Your task to perform on an android device: Open ESPN.com Image 0: 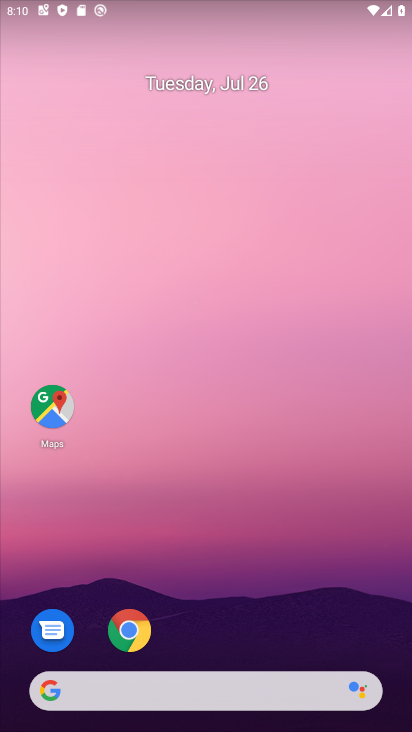
Step 0: click (218, 686)
Your task to perform on an android device: Open ESPN.com Image 1: 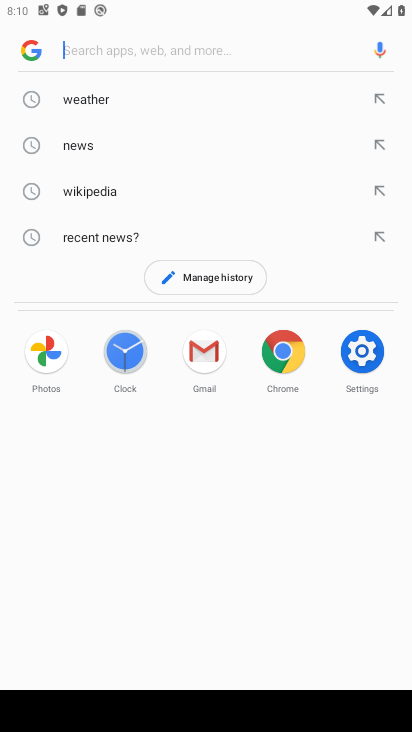
Step 1: type "espn.com"
Your task to perform on an android device: Open ESPN.com Image 2: 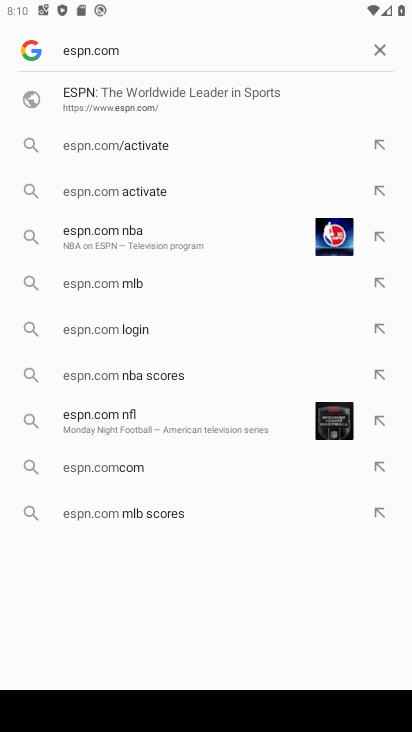
Step 2: click (204, 117)
Your task to perform on an android device: Open ESPN.com Image 3: 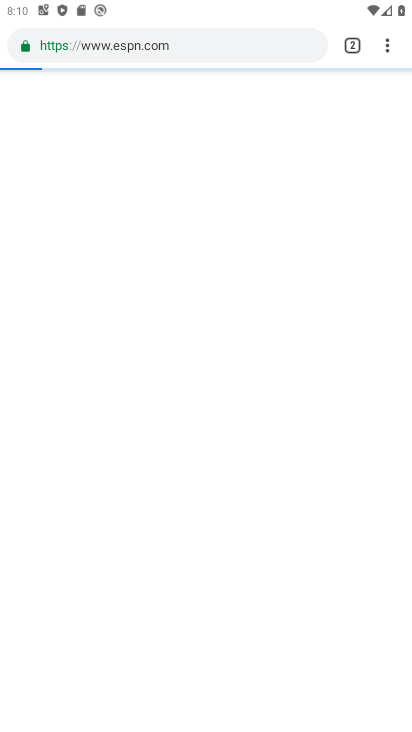
Step 3: task complete